Your task to perform on an android device: Show me productivity apps on the Play Store Image 0: 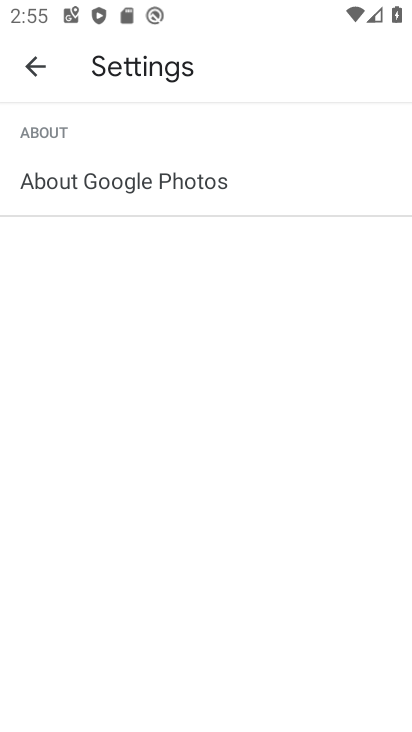
Step 0: press home button
Your task to perform on an android device: Show me productivity apps on the Play Store Image 1: 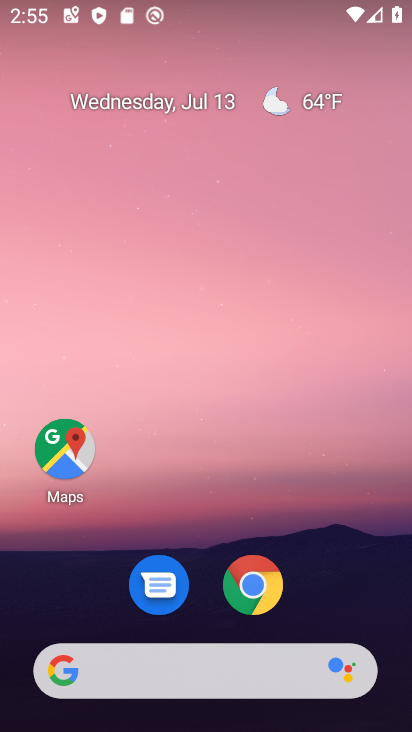
Step 1: drag from (184, 668) to (271, 137)
Your task to perform on an android device: Show me productivity apps on the Play Store Image 2: 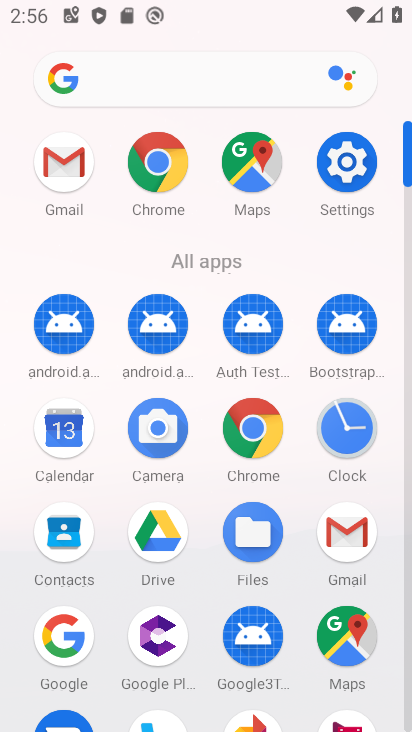
Step 2: drag from (207, 660) to (344, 165)
Your task to perform on an android device: Show me productivity apps on the Play Store Image 3: 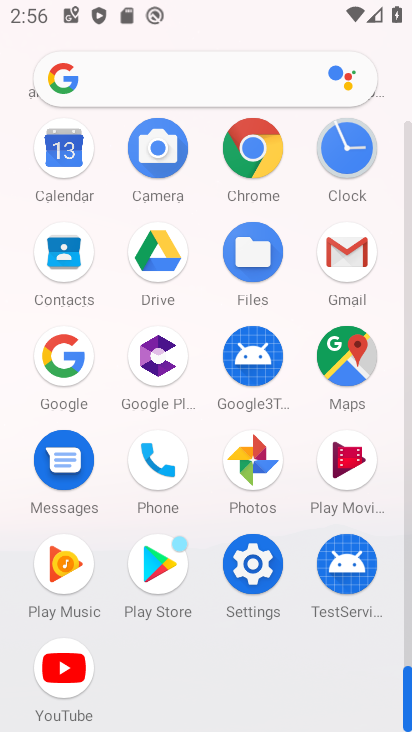
Step 3: click (154, 570)
Your task to perform on an android device: Show me productivity apps on the Play Store Image 4: 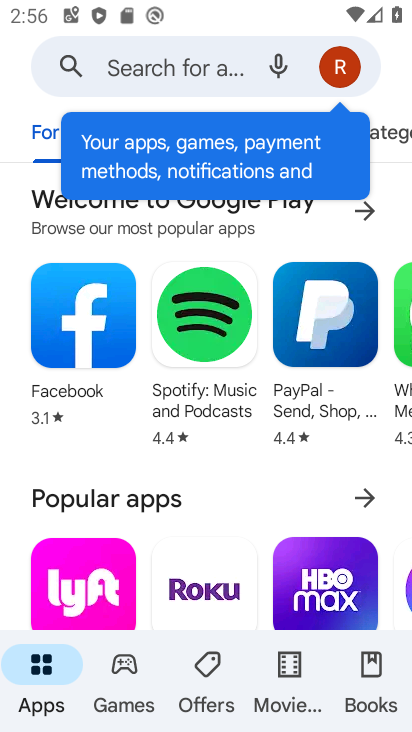
Step 4: click (384, 138)
Your task to perform on an android device: Show me productivity apps on the Play Store Image 5: 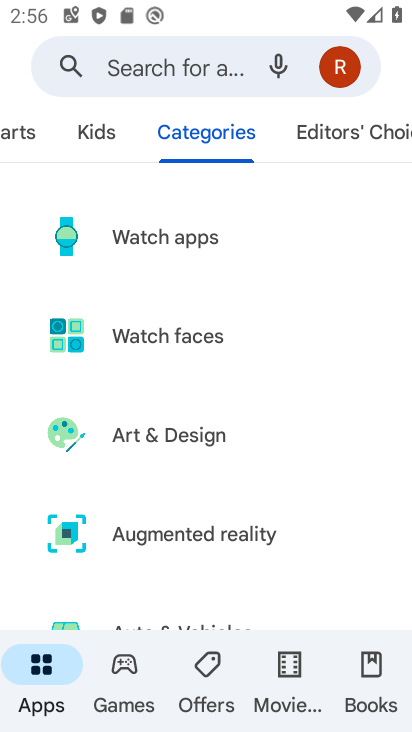
Step 5: drag from (249, 575) to (366, 116)
Your task to perform on an android device: Show me productivity apps on the Play Store Image 6: 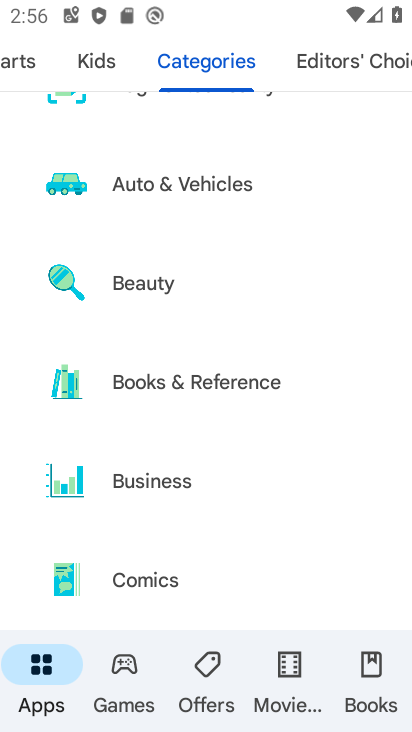
Step 6: drag from (249, 563) to (376, 109)
Your task to perform on an android device: Show me productivity apps on the Play Store Image 7: 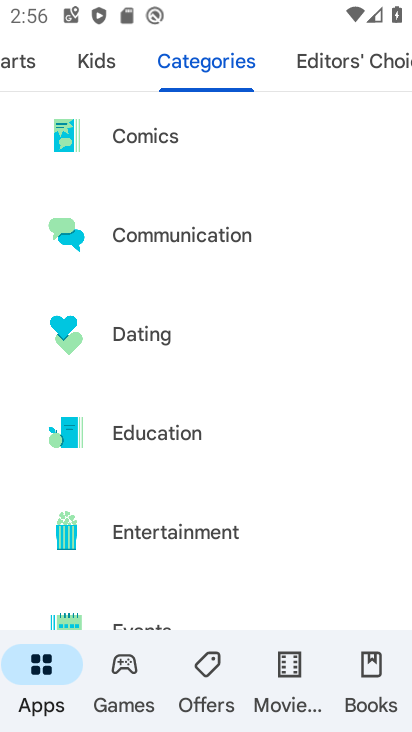
Step 7: drag from (257, 591) to (399, 100)
Your task to perform on an android device: Show me productivity apps on the Play Store Image 8: 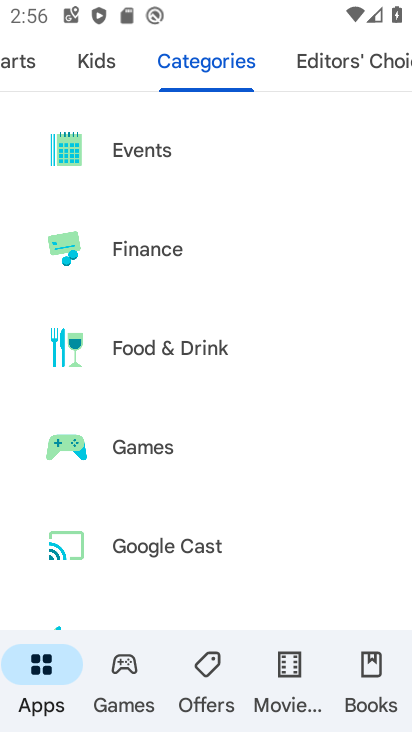
Step 8: drag from (249, 578) to (354, 116)
Your task to perform on an android device: Show me productivity apps on the Play Store Image 9: 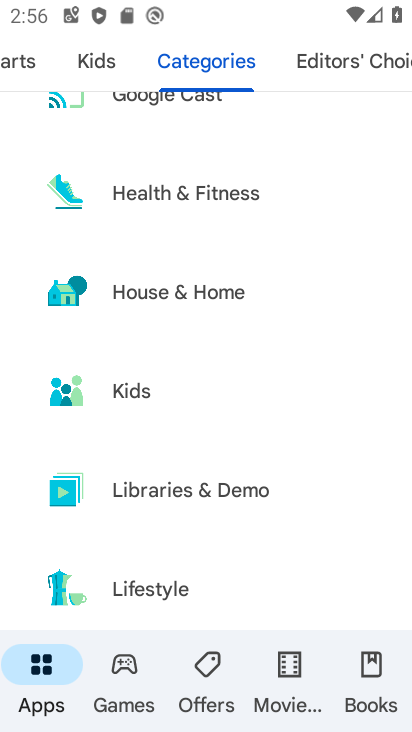
Step 9: drag from (268, 539) to (357, 108)
Your task to perform on an android device: Show me productivity apps on the Play Store Image 10: 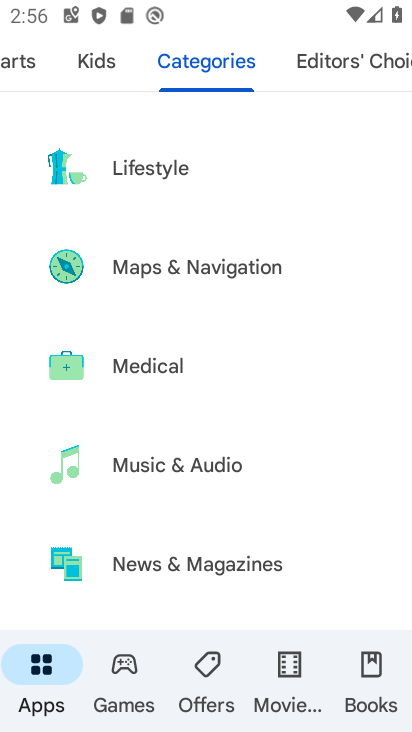
Step 10: drag from (259, 578) to (354, 149)
Your task to perform on an android device: Show me productivity apps on the Play Store Image 11: 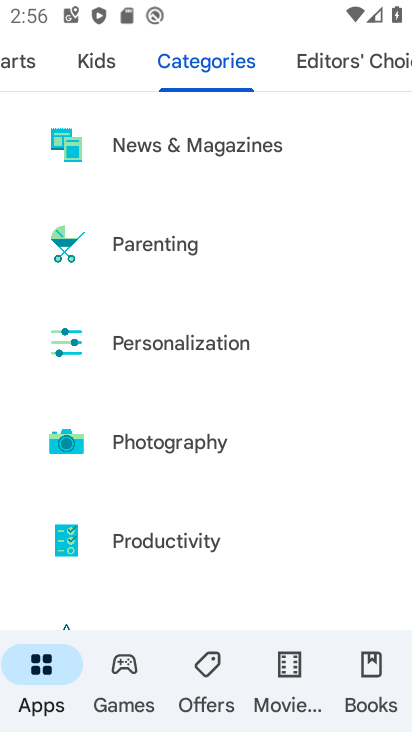
Step 11: click (189, 542)
Your task to perform on an android device: Show me productivity apps on the Play Store Image 12: 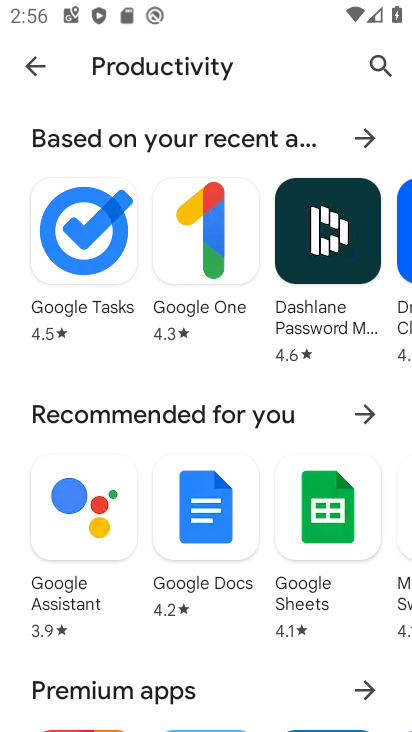
Step 12: task complete